Your task to perform on an android device: add a contact Image 0: 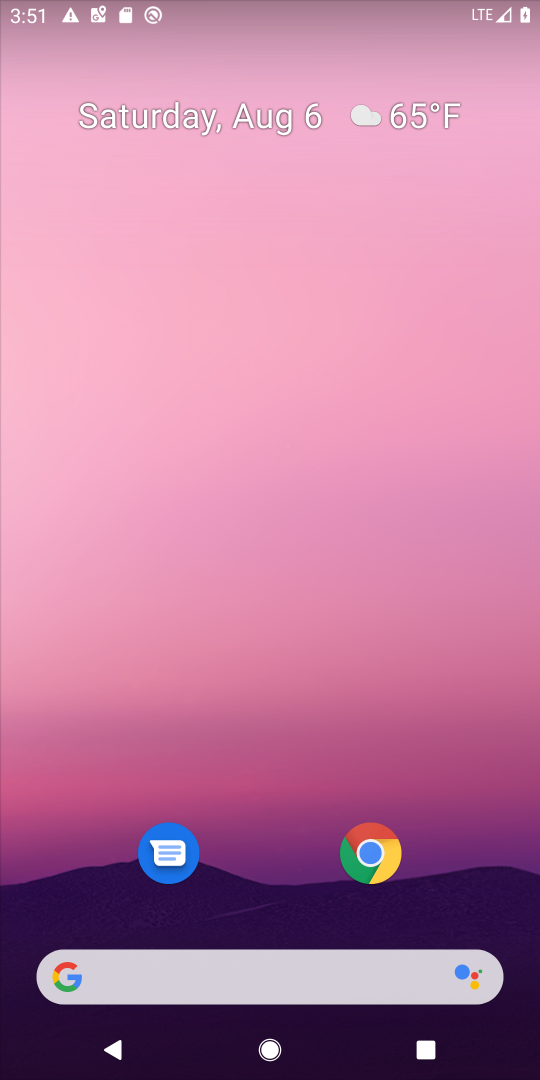
Step 0: drag from (255, 900) to (376, 15)
Your task to perform on an android device: add a contact Image 1: 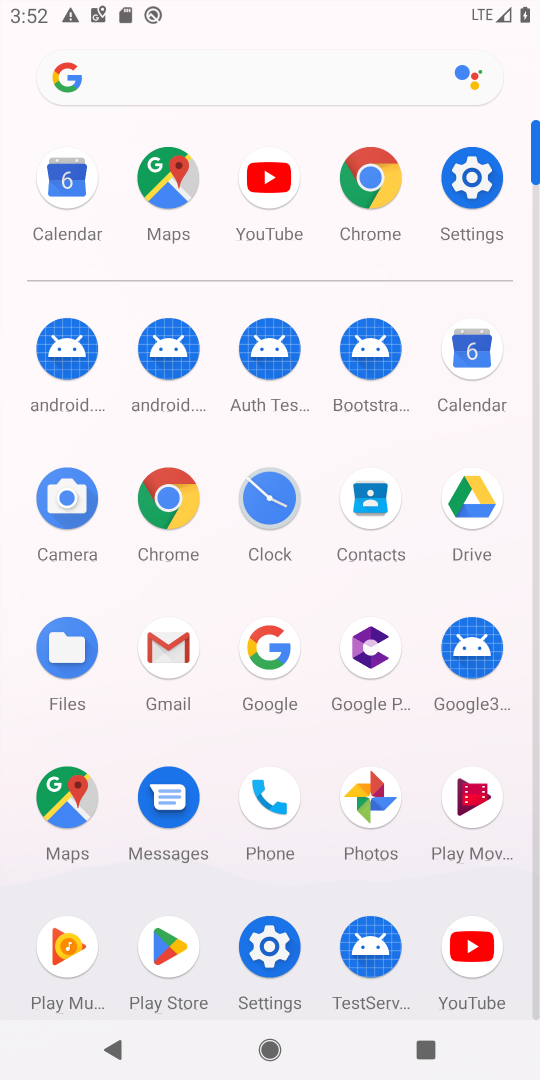
Step 1: click (360, 521)
Your task to perform on an android device: add a contact Image 2: 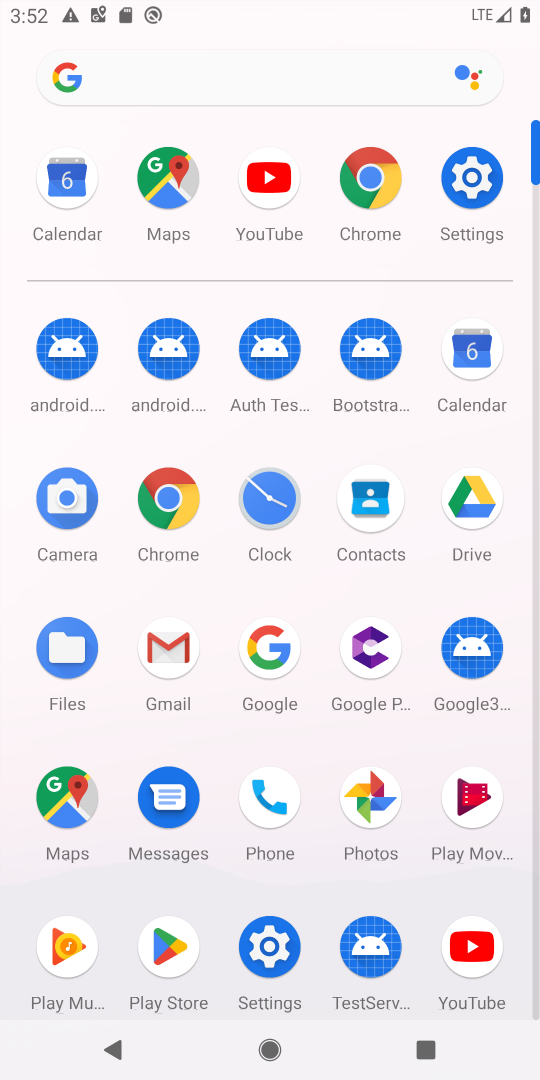
Step 2: click (371, 501)
Your task to perform on an android device: add a contact Image 3: 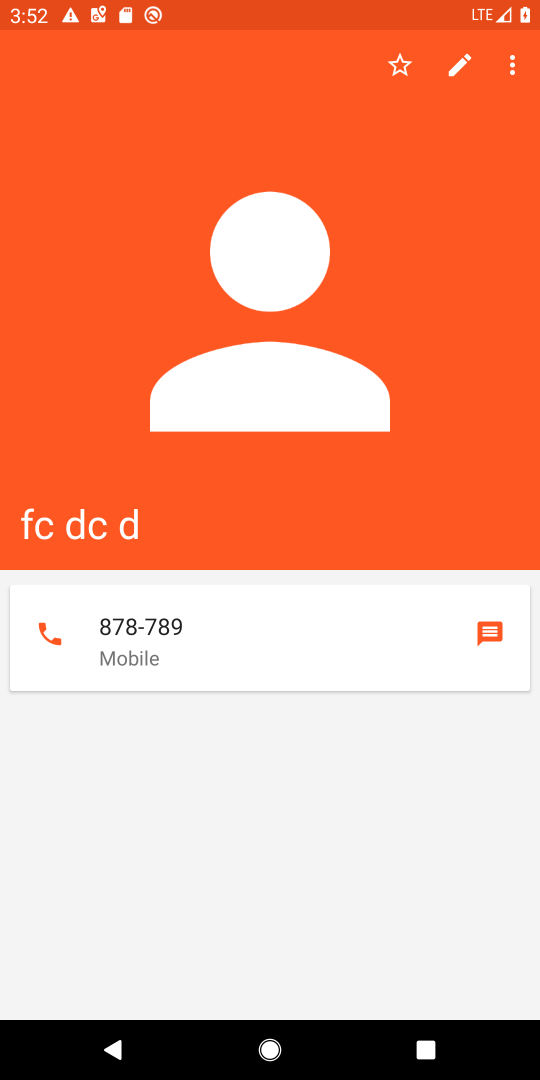
Step 3: press back button
Your task to perform on an android device: add a contact Image 4: 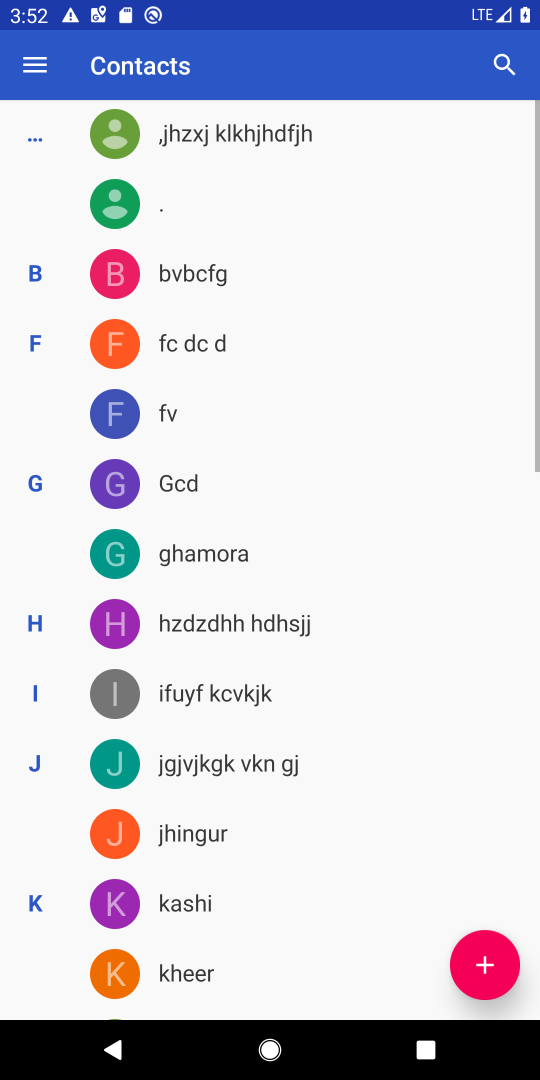
Step 4: click (493, 965)
Your task to perform on an android device: add a contact Image 5: 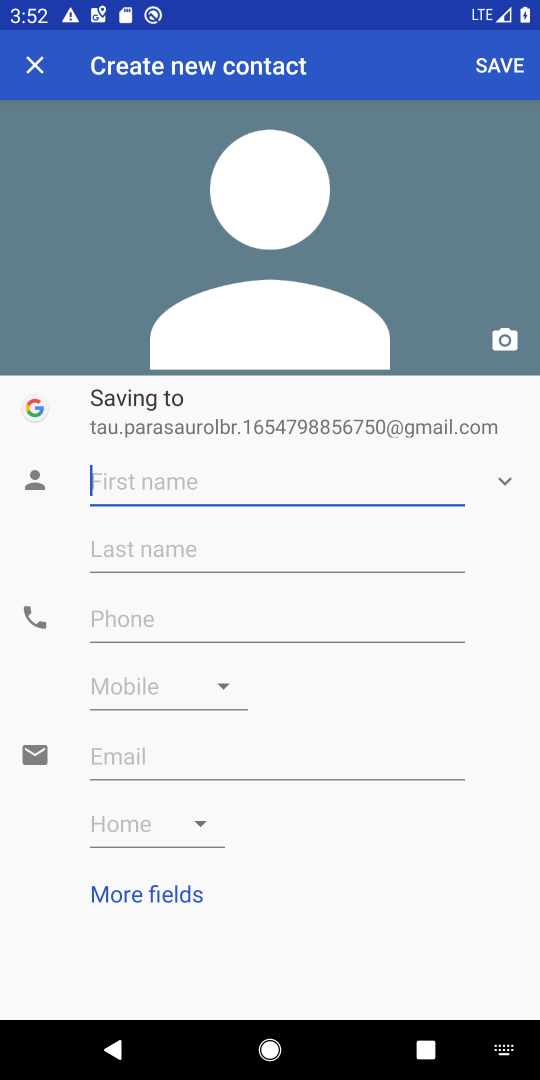
Step 5: click (134, 489)
Your task to perform on an android device: add a contact Image 6: 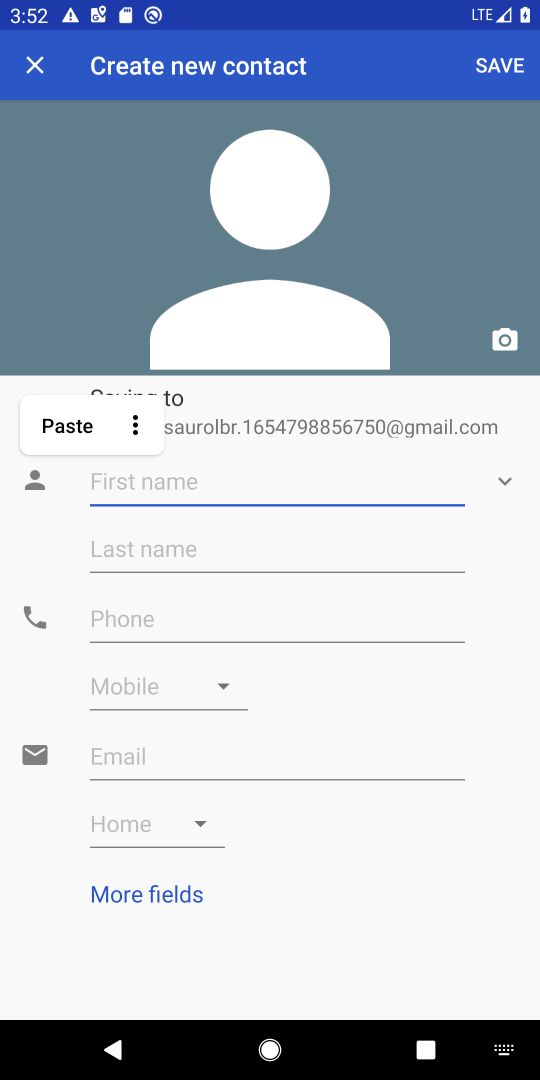
Step 6: type "gbgb"
Your task to perform on an android device: add a contact Image 7: 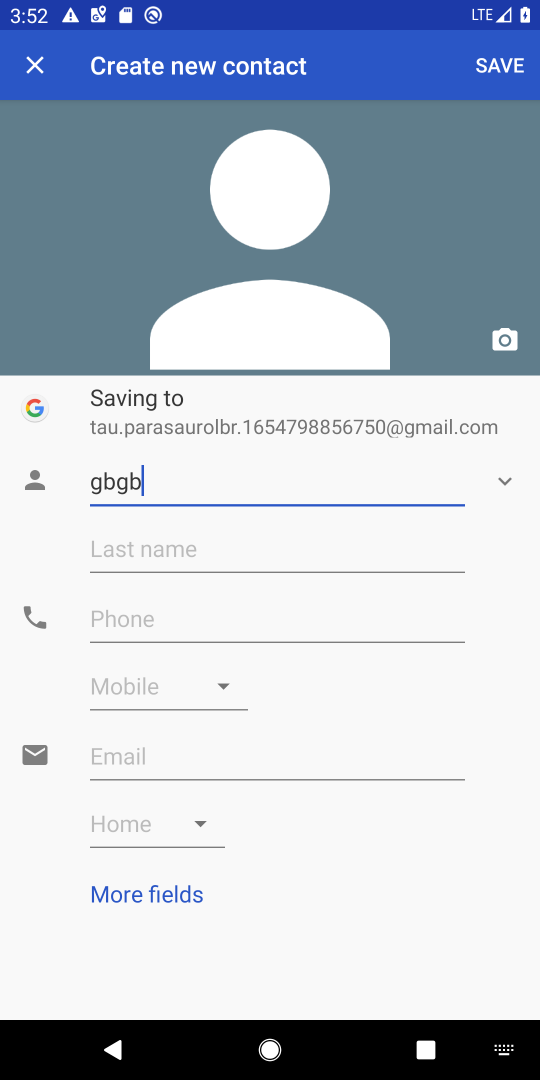
Step 7: click (185, 610)
Your task to perform on an android device: add a contact Image 8: 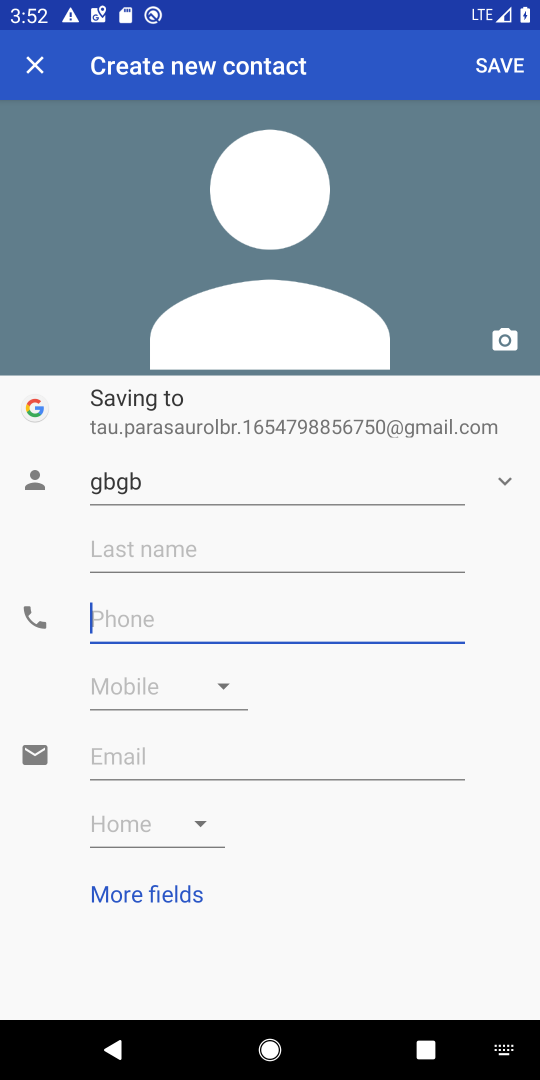
Step 8: type "645644"
Your task to perform on an android device: add a contact Image 9: 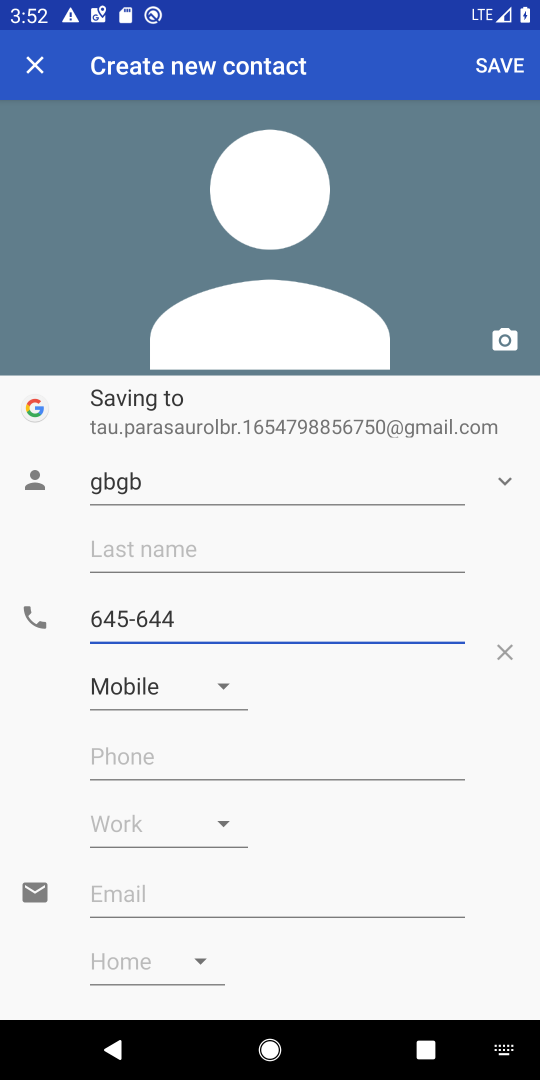
Step 9: click (494, 62)
Your task to perform on an android device: add a contact Image 10: 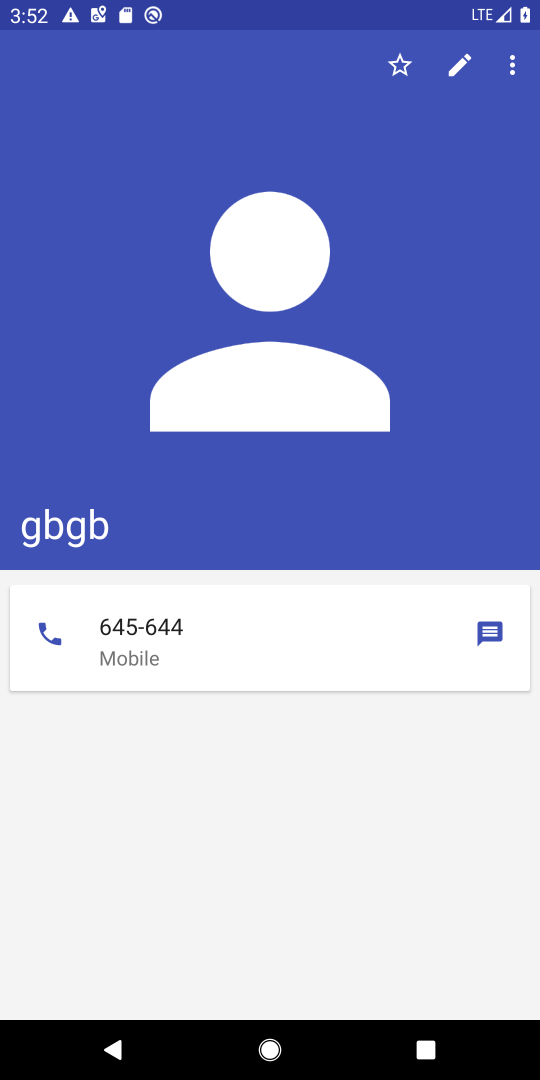
Step 10: task complete